Your task to perform on an android device: When is my next meeting? Image 0: 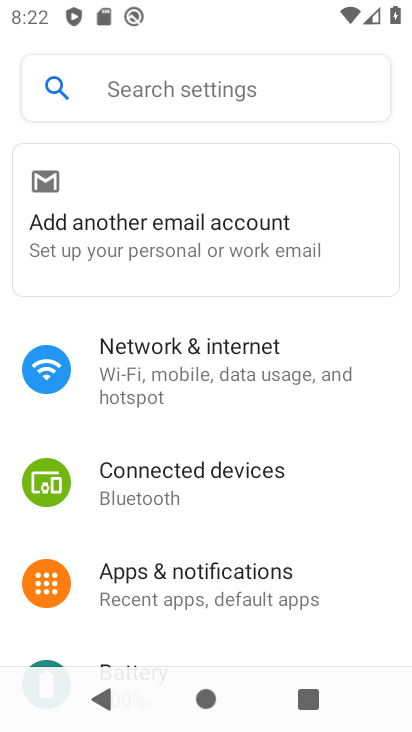
Step 0: press home button
Your task to perform on an android device: When is my next meeting? Image 1: 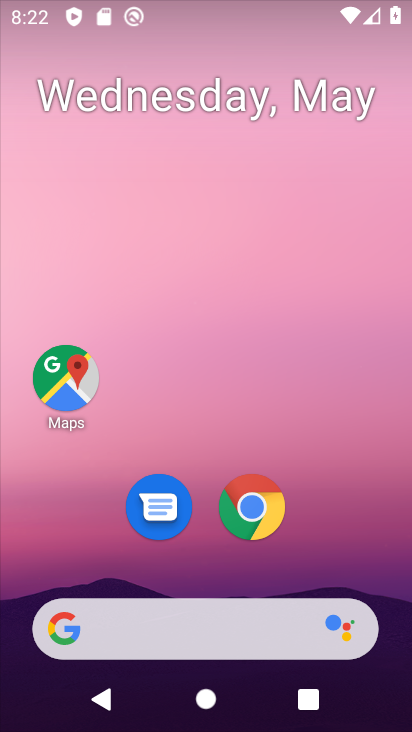
Step 1: drag from (297, 578) to (299, 69)
Your task to perform on an android device: When is my next meeting? Image 2: 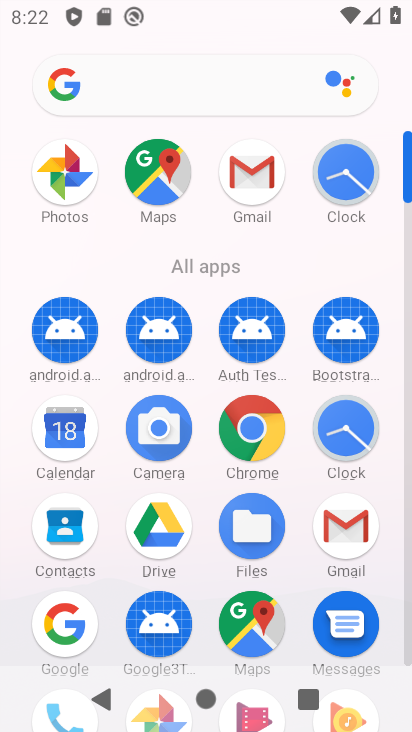
Step 2: click (66, 431)
Your task to perform on an android device: When is my next meeting? Image 3: 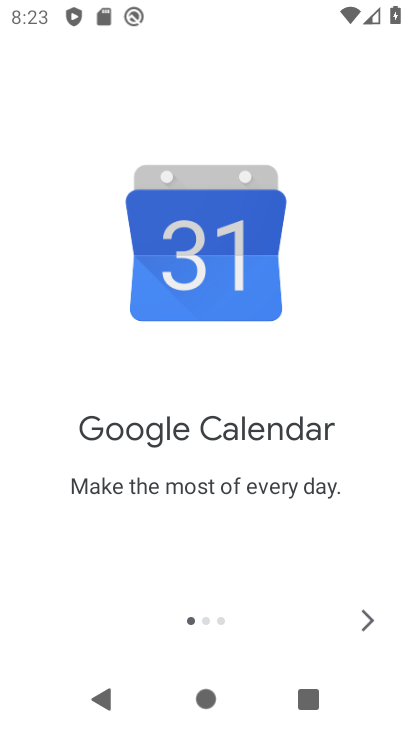
Step 3: click (356, 620)
Your task to perform on an android device: When is my next meeting? Image 4: 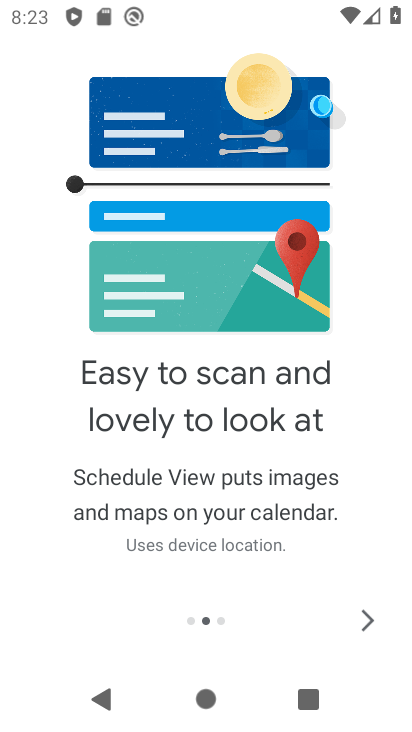
Step 4: click (368, 611)
Your task to perform on an android device: When is my next meeting? Image 5: 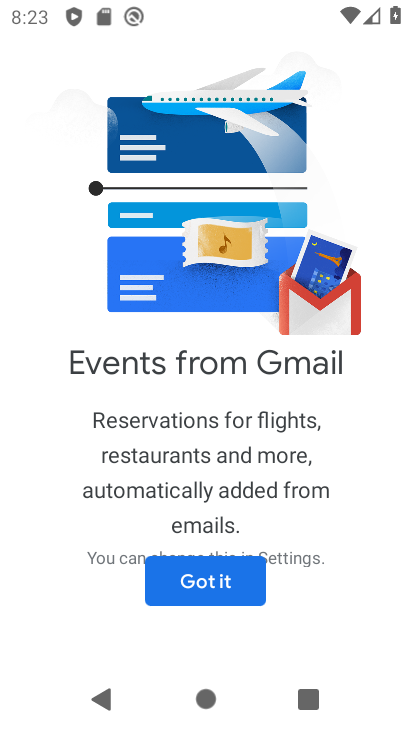
Step 5: click (233, 567)
Your task to perform on an android device: When is my next meeting? Image 6: 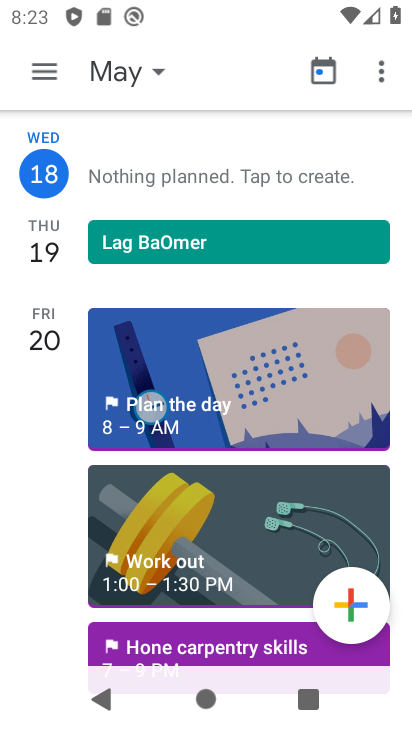
Step 6: click (43, 74)
Your task to perform on an android device: When is my next meeting? Image 7: 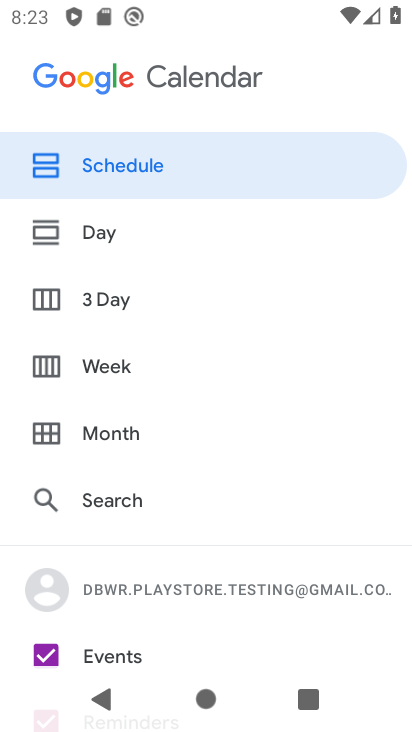
Step 7: click (134, 156)
Your task to perform on an android device: When is my next meeting? Image 8: 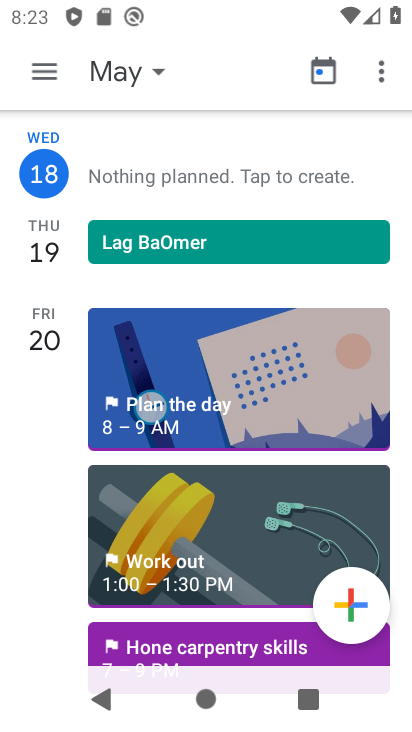
Step 8: task complete